Your task to perform on an android device: Open the phone app and click the voicemail tab. Image 0: 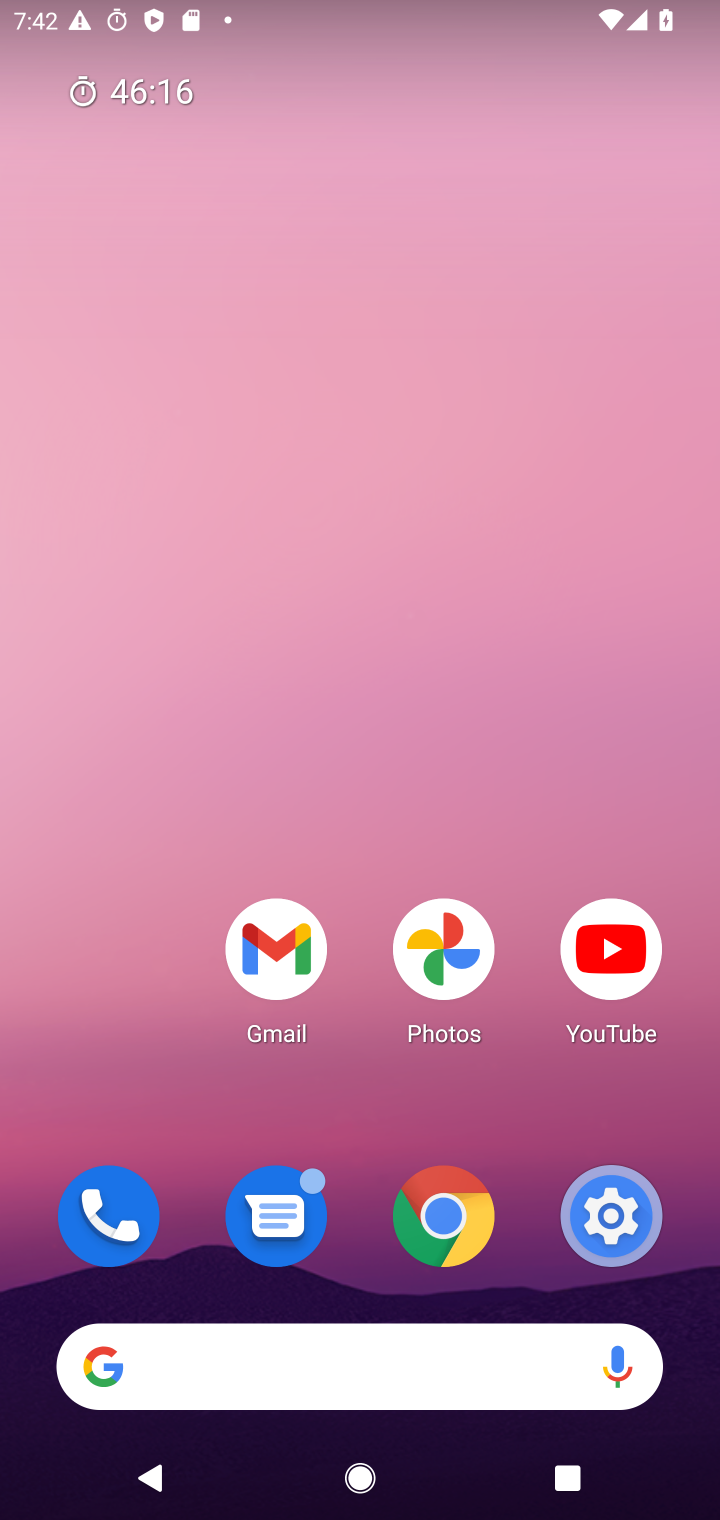
Step 0: click (116, 1199)
Your task to perform on an android device: Open the phone app and click the voicemail tab. Image 1: 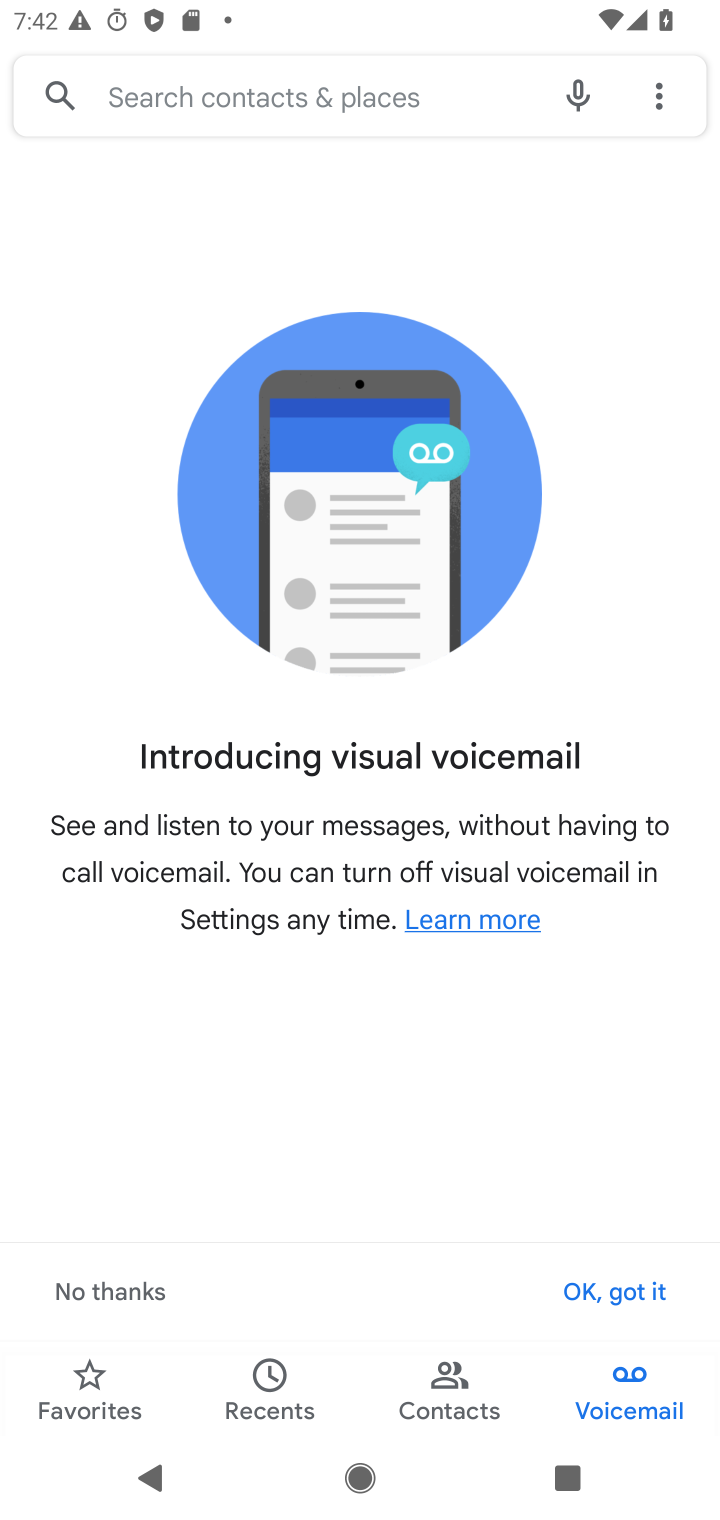
Step 1: click (621, 1389)
Your task to perform on an android device: Open the phone app and click the voicemail tab. Image 2: 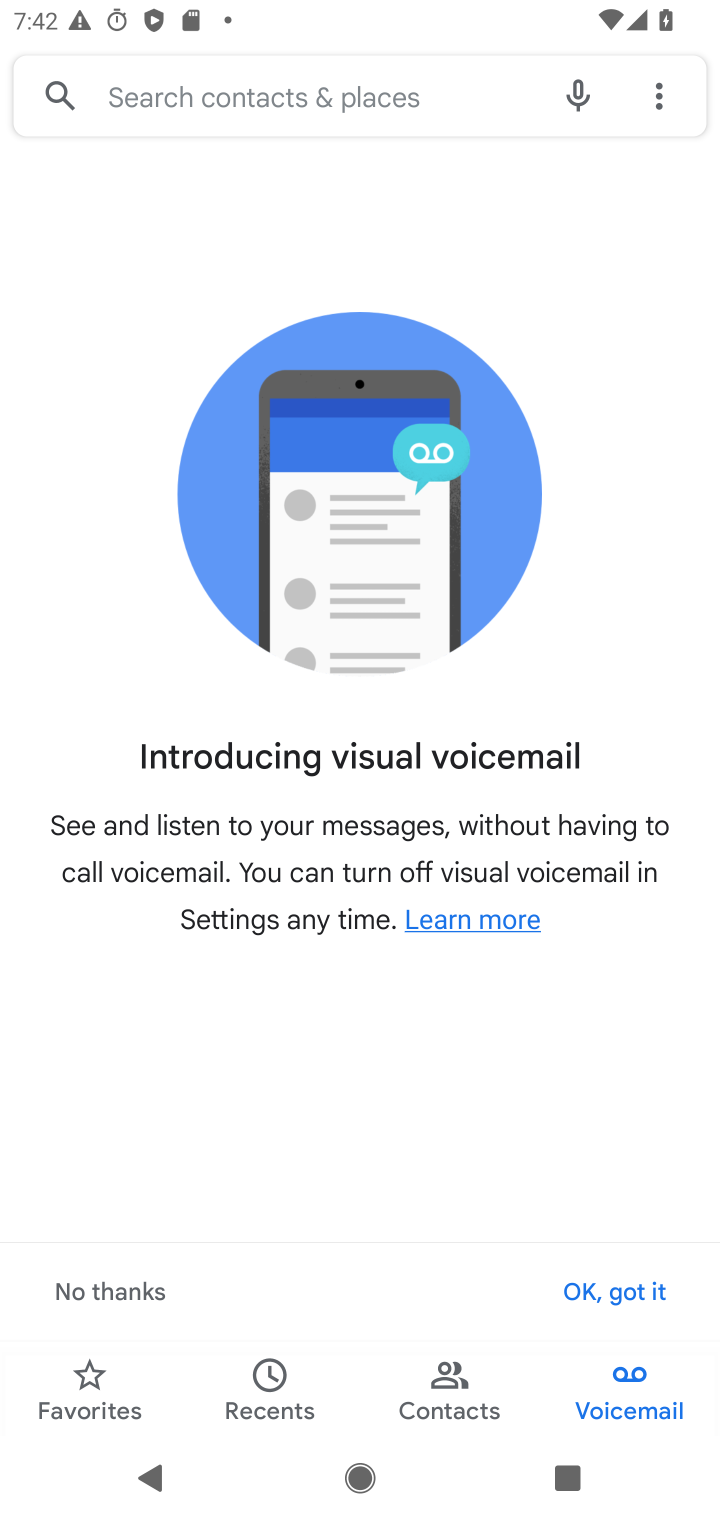
Step 2: task complete